Your task to perform on an android device: turn off notifications in google photos Image 0: 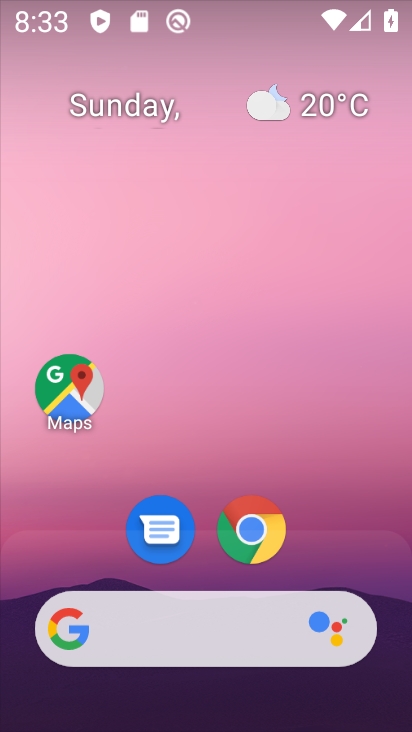
Step 0: click (384, 477)
Your task to perform on an android device: turn off notifications in google photos Image 1: 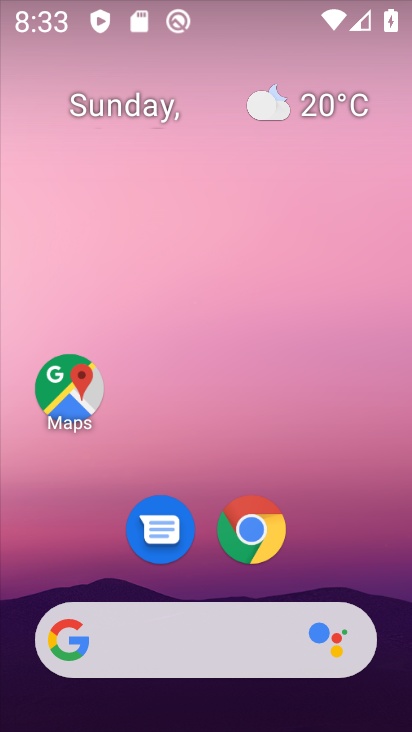
Step 1: drag from (72, 581) to (167, 170)
Your task to perform on an android device: turn off notifications in google photos Image 2: 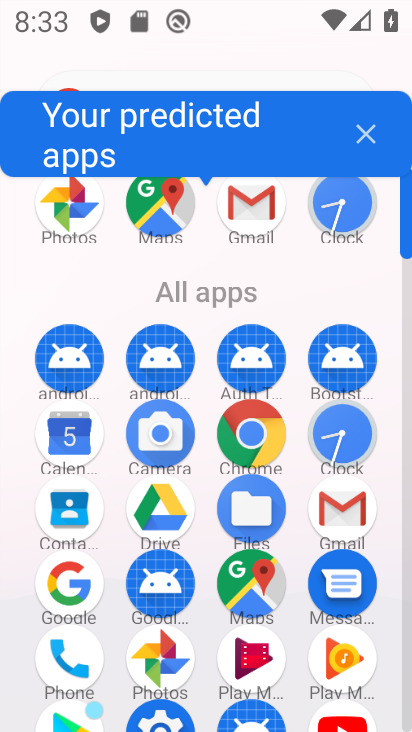
Step 2: click (164, 659)
Your task to perform on an android device: turn off notifications in google photos Image 3: 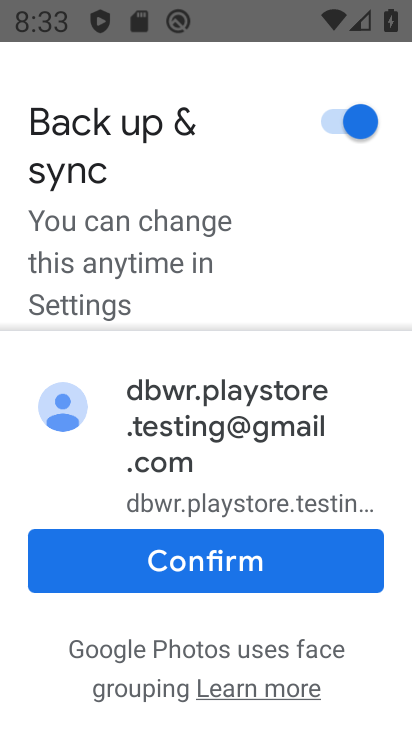
Step 3: click (194, 560)
Your task to perform on an android device: turn off notifications in google photos Image 4: 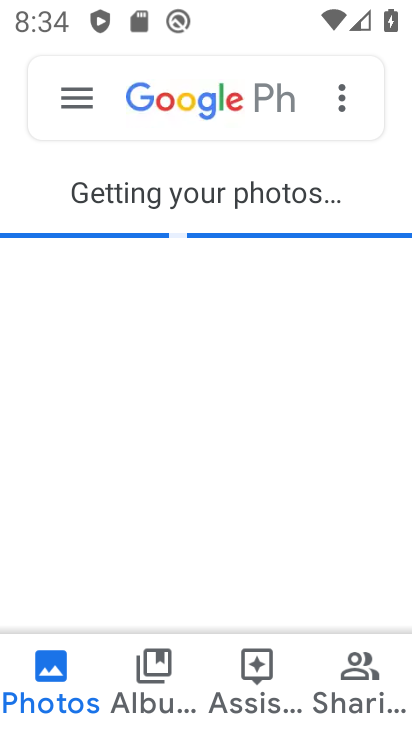
Step 4: click (88, 98)
Your task to perform on an android device: turn off notifications in google photos Image 5: 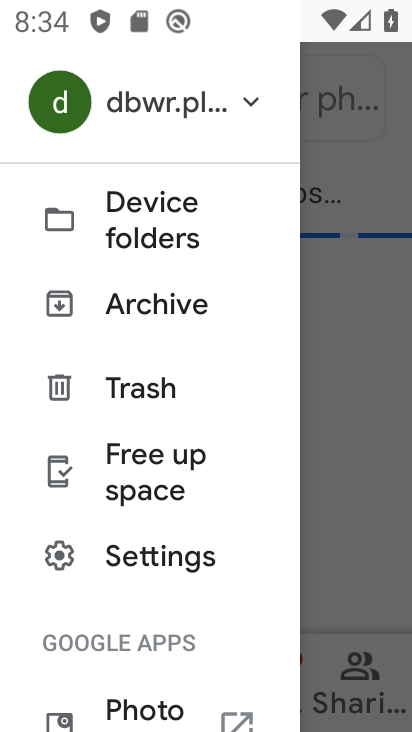
Step 5: drag from (119, 558) to (183, 227)
Your task to perform on an android device: turn off notifications in google photos Image 6: 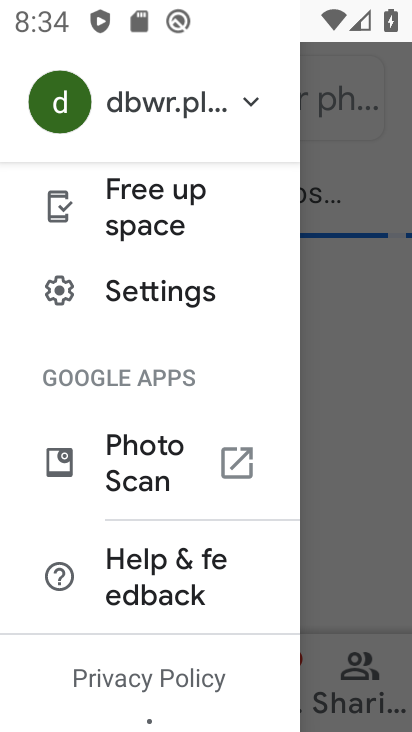
Step 6: click (178, 307)
Your task to perform on an android device: turn off notifications in google photos Image 7: 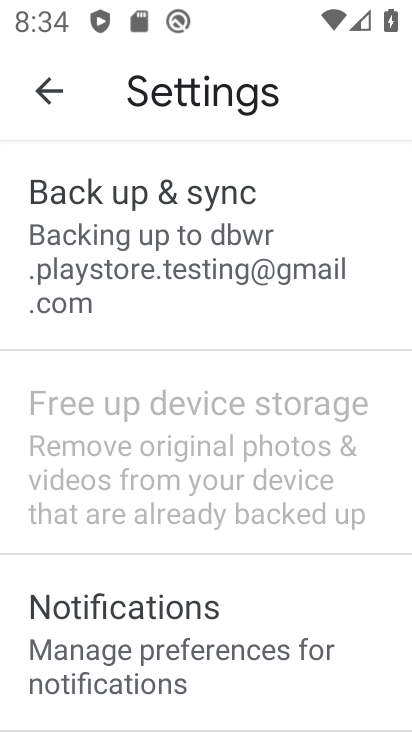
Step 7: click (179, 628)
Your task to perform on an android device: turn off notifications in google photos Image 8: 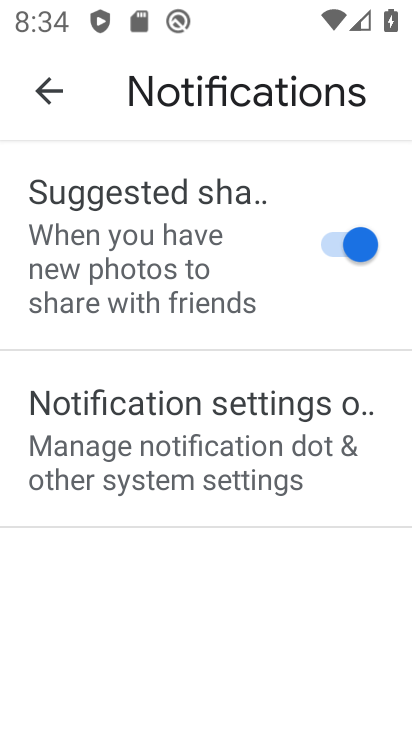
Step 8: click (216, 431)
Your task to perform on an android device: turn off notifications in google photos Image 9: 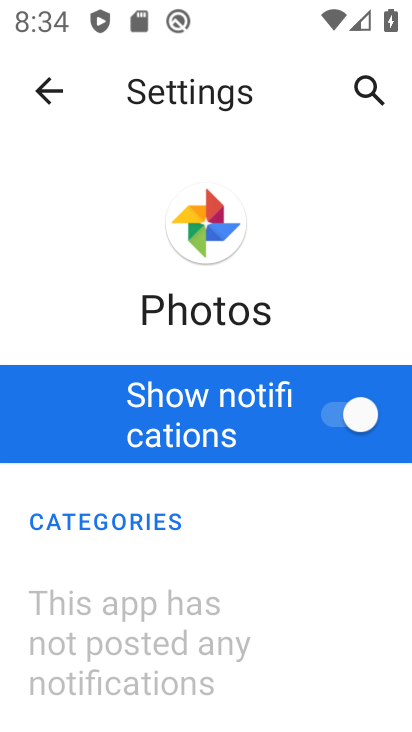
Step 9: click (337, 415)
Your task to perform on an android device: turn off notifications in google photos Image 10: 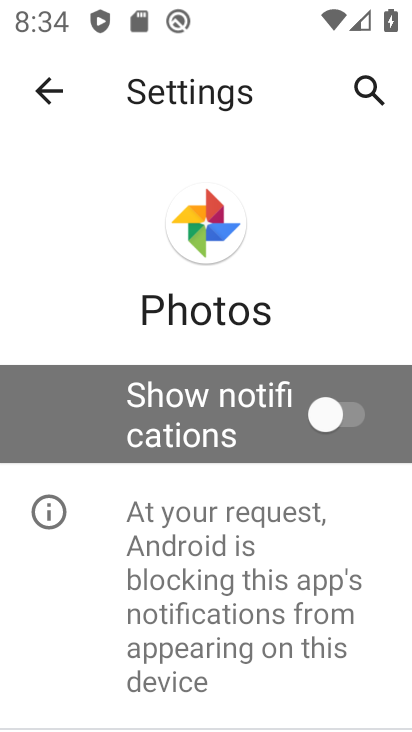
Step 10: task complete